Your task to perform on an android device: open app "Google News" Image 0: 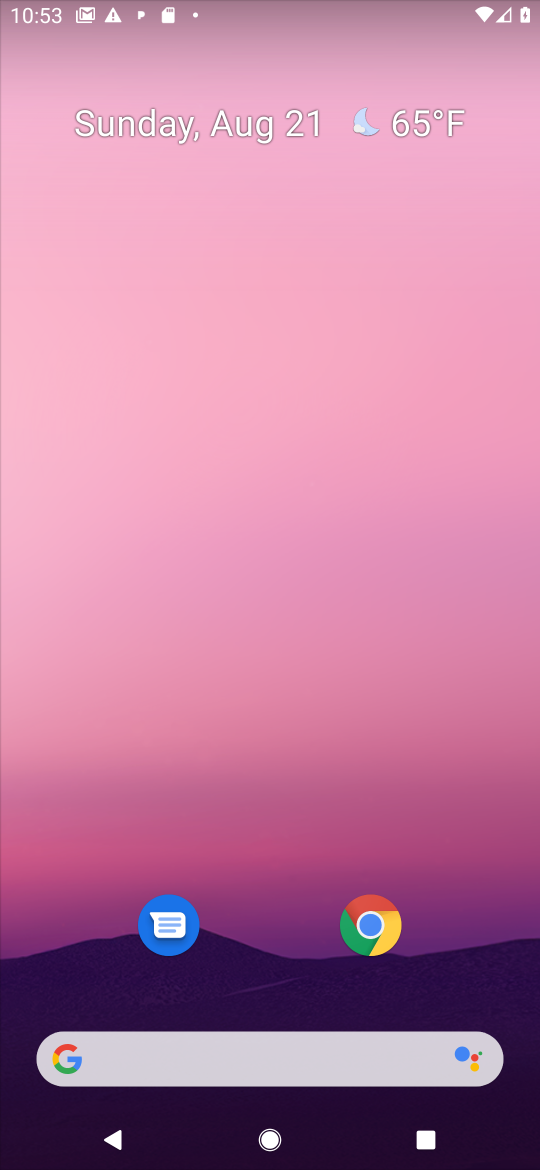
Step 0: drag from (299, 842) to (303, 32)
Your task to perform on an android device: open app "Google News" Image 1: 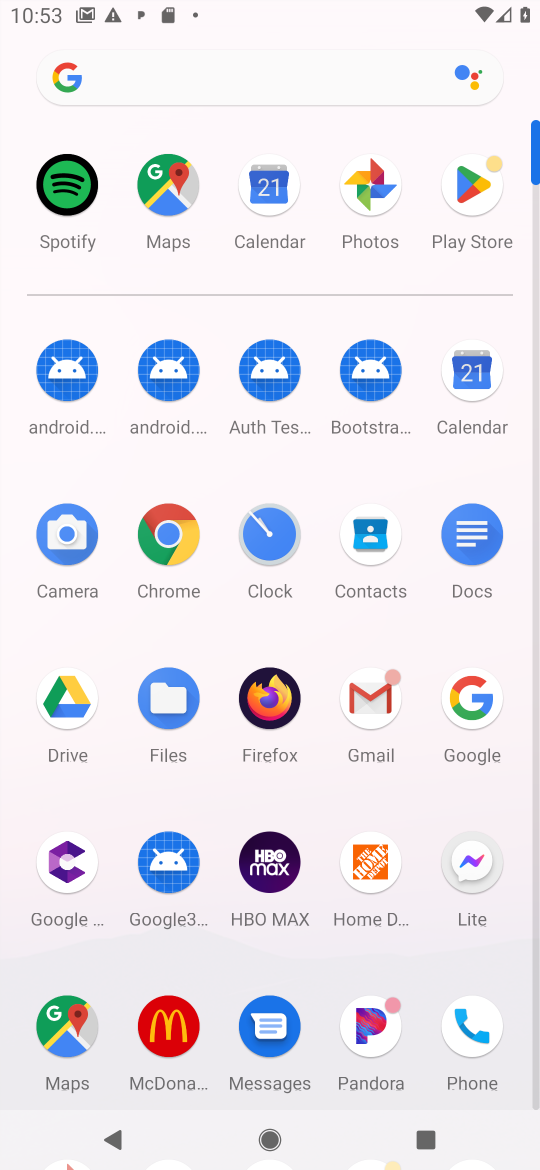
Step 1: click (461, 194)
Your task to perform on an android device: open app "Google News" Image 2: 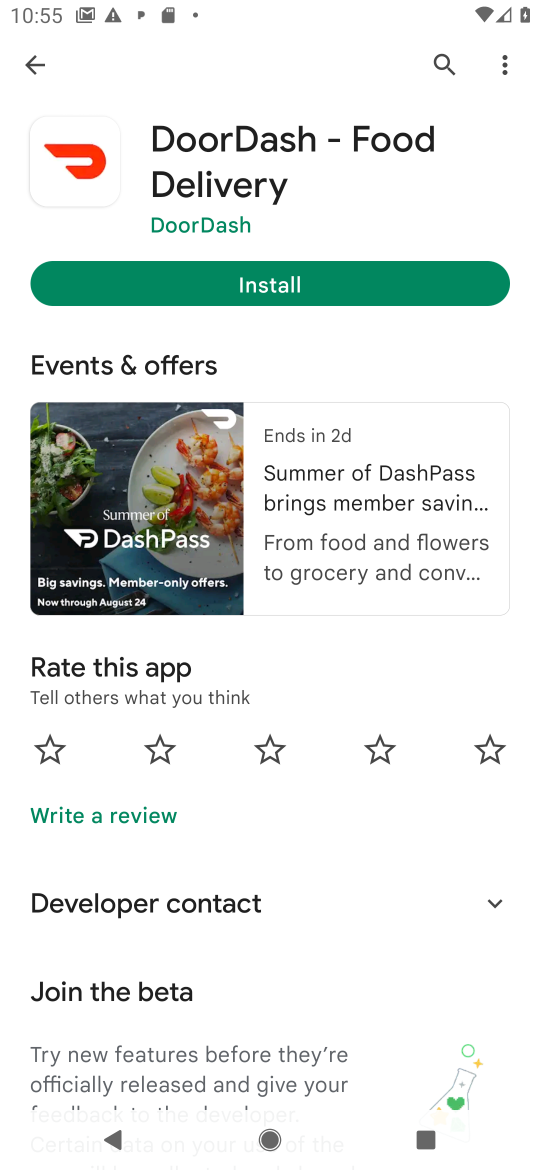
Step 2: click (437, 64)
Your task to perform on an android device: open app "Google News" Image 3: 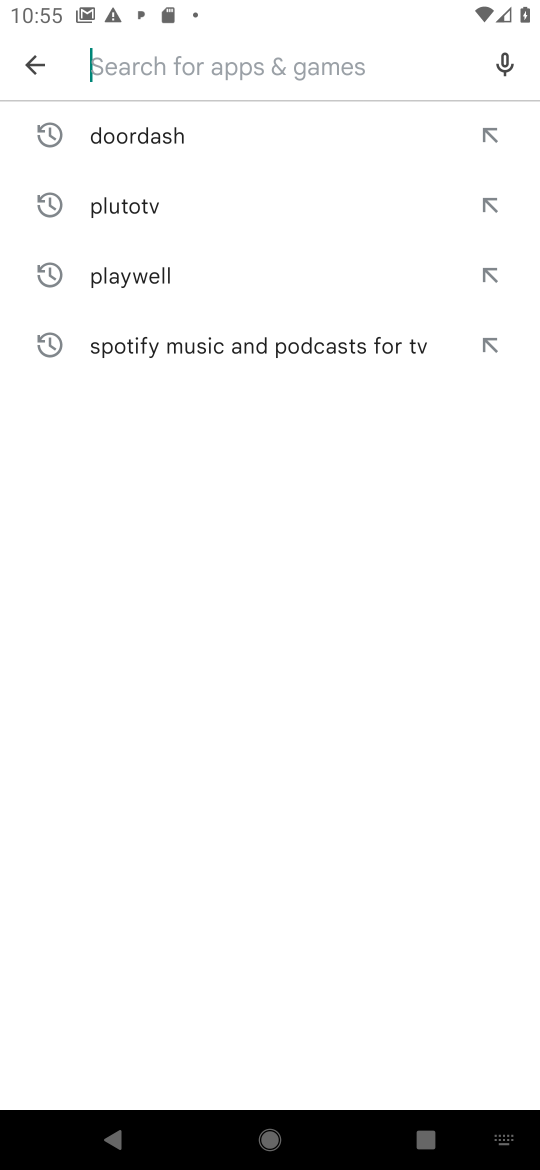
Step 3: click (133, 64)
Your task to perform on an android device: open app "Google News" Image 4: 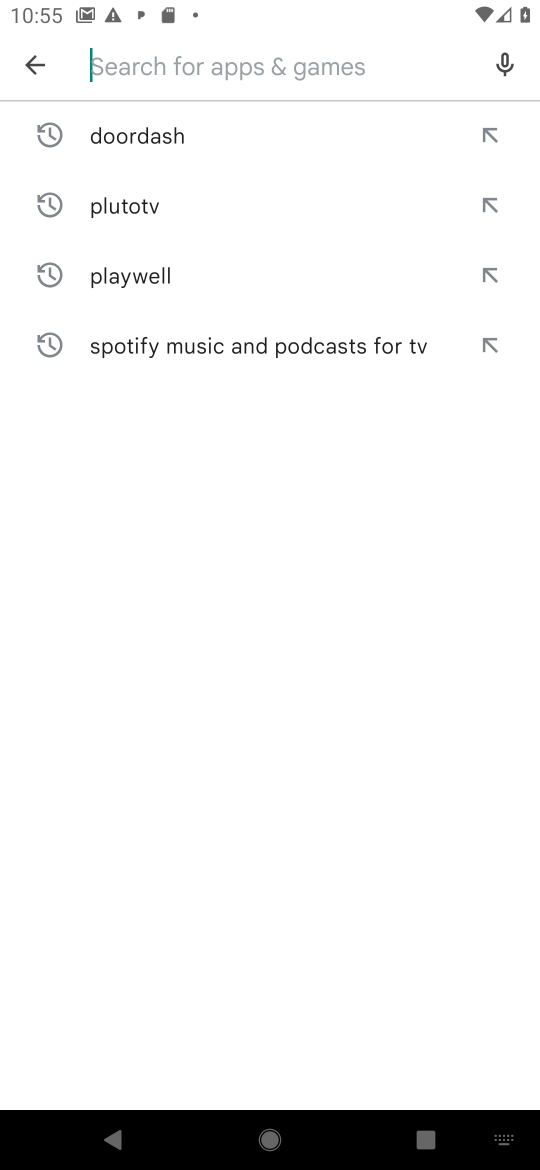
Step 4: click (179, 47)
Your task to perform on an android device: open app "Google News" Image 5: 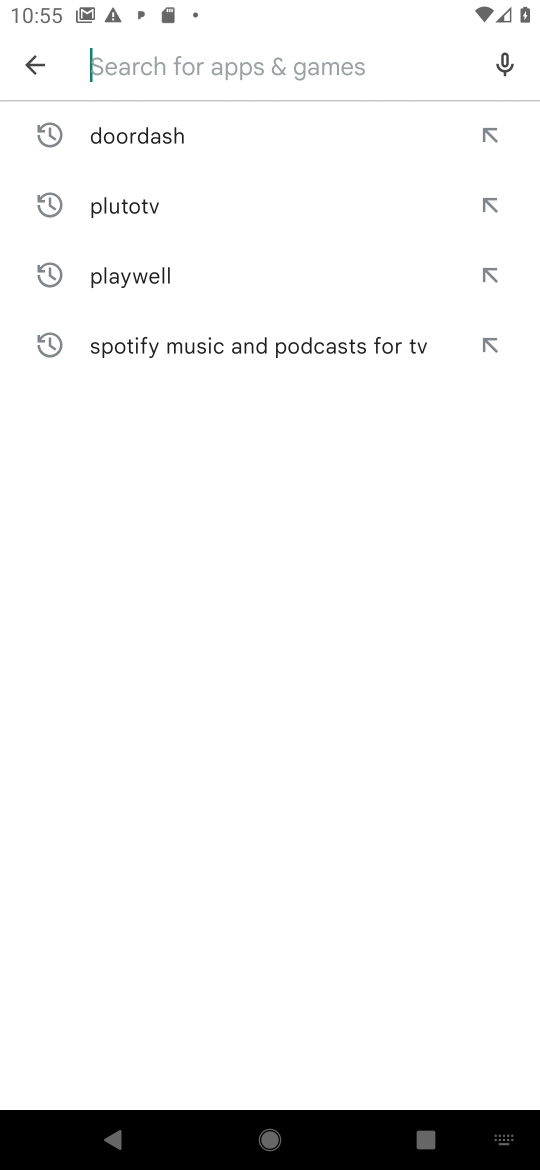
Step 5: type "Google News"
Your task to perform on an android device: open app "Google News" Image 6: 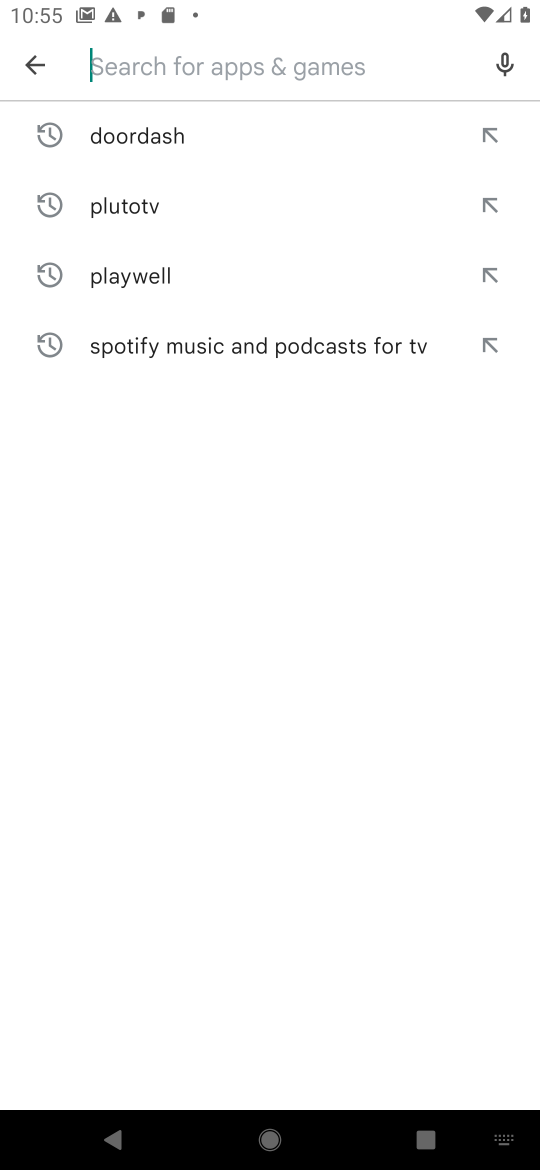
Step 6: click (393, 633)
Your task to perform on an android device: open app "Google News" Image 7: 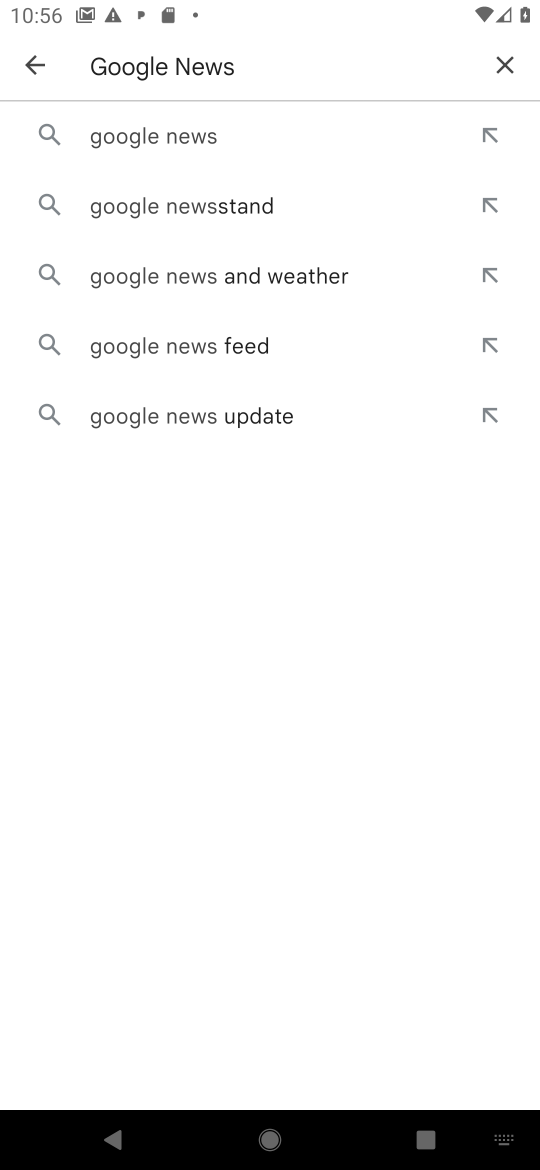
Step 7: click (197, 127)
Your task to perform on an android device: open app "Google News" Image 8: 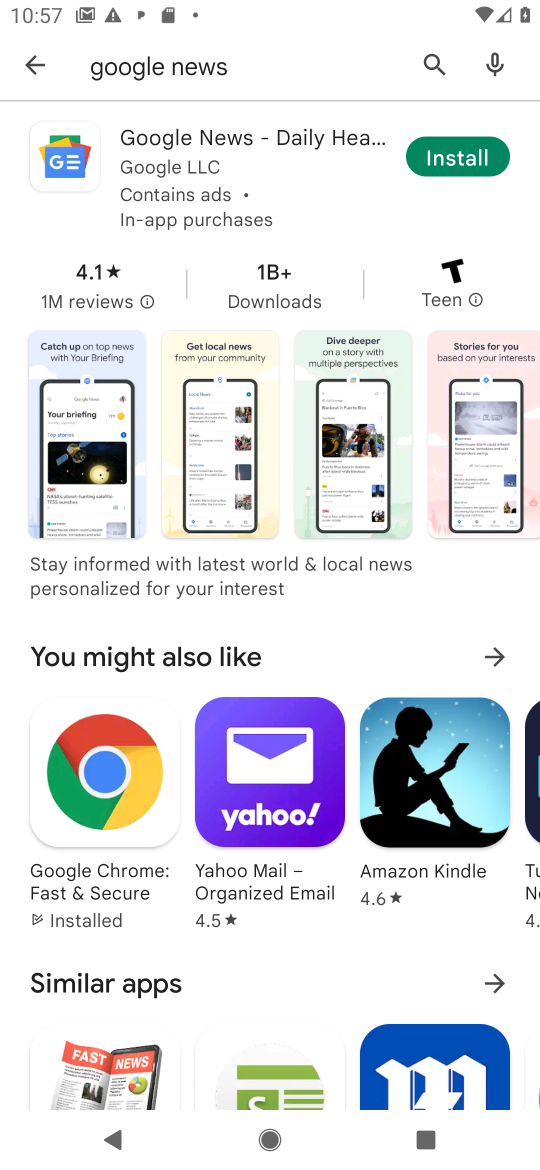
Step 8: click (204, 168)
Your task to perform on an android device: open app "Google News" Image 9: 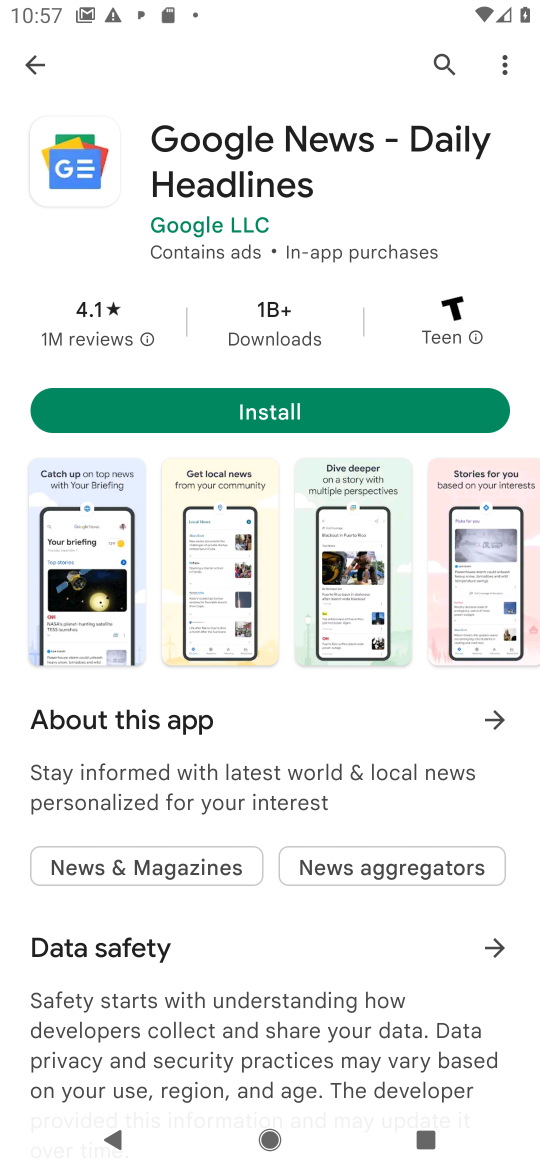
Step 9: task complete